Your task to perform on an android device: turn notification dots on Image 0: 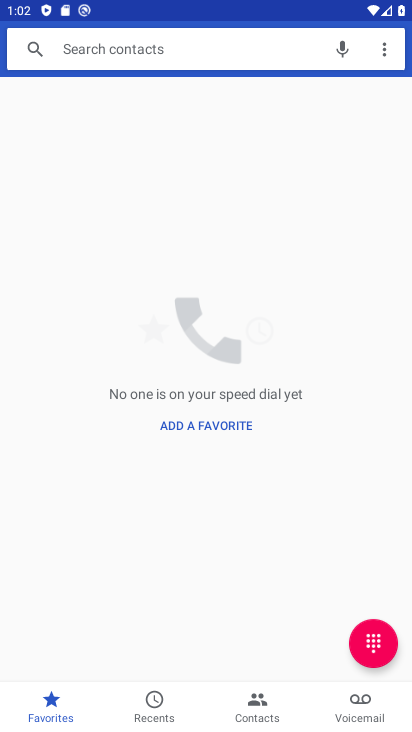
Step 0: press home button
Your task to perform on an android device: turn notification dots on Image 1: 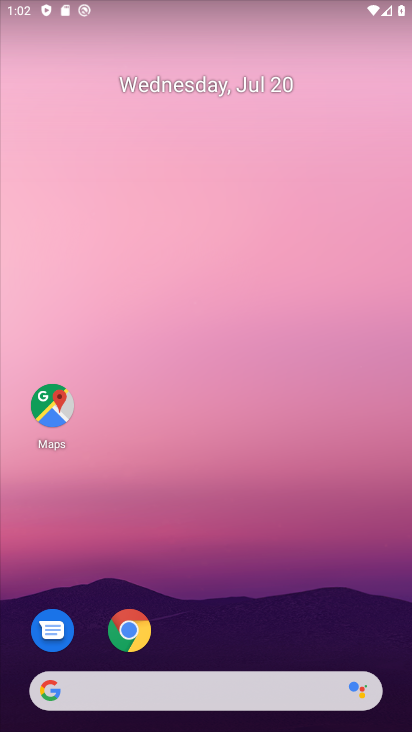
Step 1: drag from (295, 596) to (264, 130)
Your task to perform on an android device: turn notification dots on Image 2: 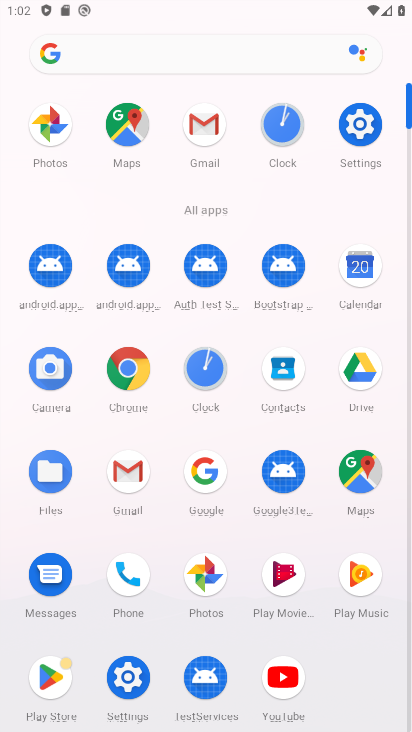
Step 2: click (365, 121)
Your task to perform on an android device: turn notification dots on Image 3: 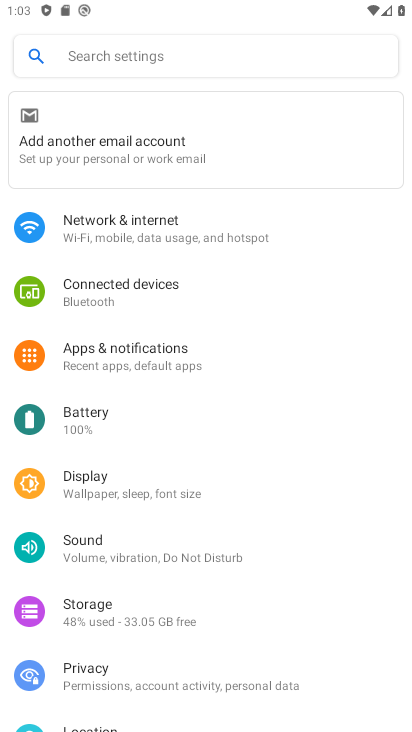
Step 3: click (138, 361)
Your task to perform on an android device: turn notification dots on Image 4: 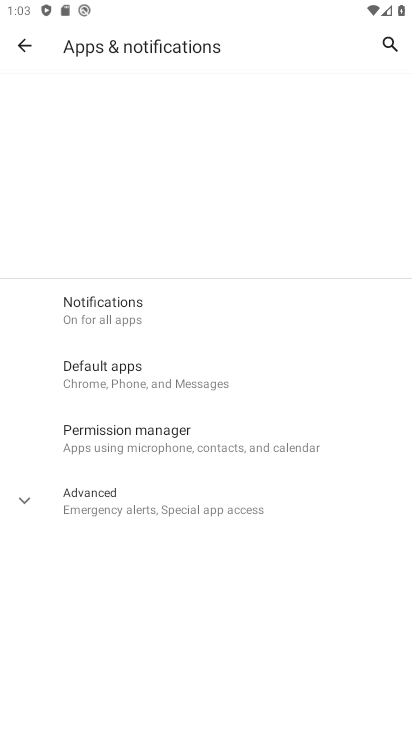
Step 4: click (136, 314)
Your task to perform on an android device: turn notification dots on Image 5: 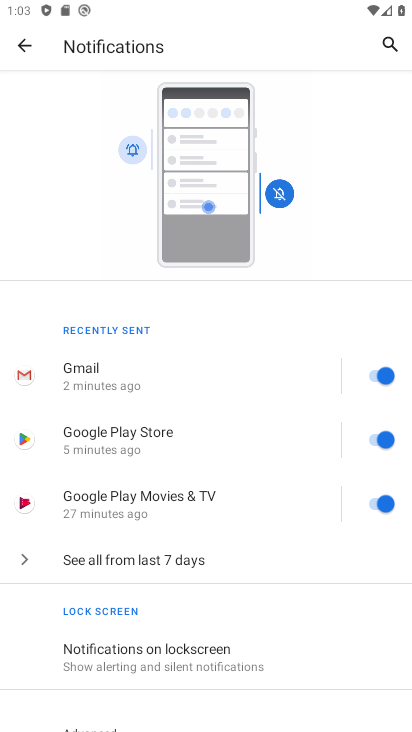
Step 5: drag from (186, 646) to (240, 113)
Your task to perform on an android device: turn notification dots on Image 6: 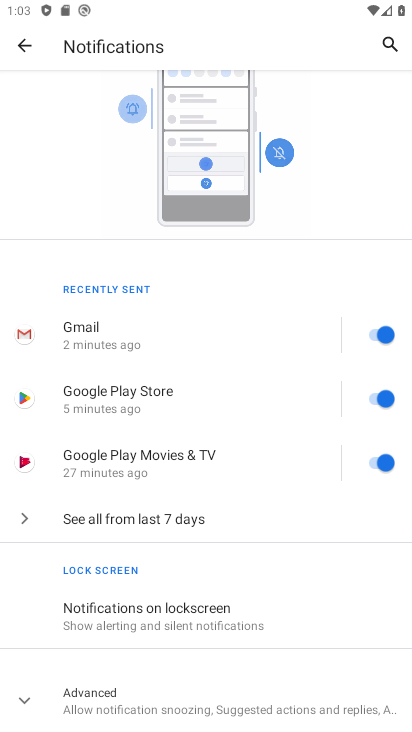
Step 6: click (169, 703)
Your task to perform on an android device: turn notification dots on Image 7: 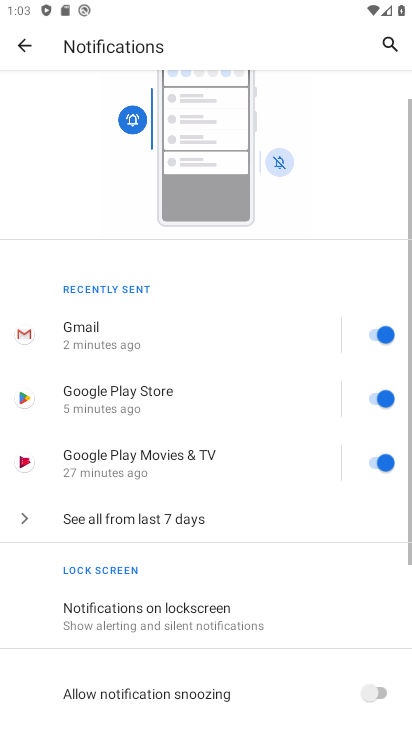
Step 7: drag from (190, 667) to (245, 203)
Your task to perform on an android device: turn notification dots on Image 8: 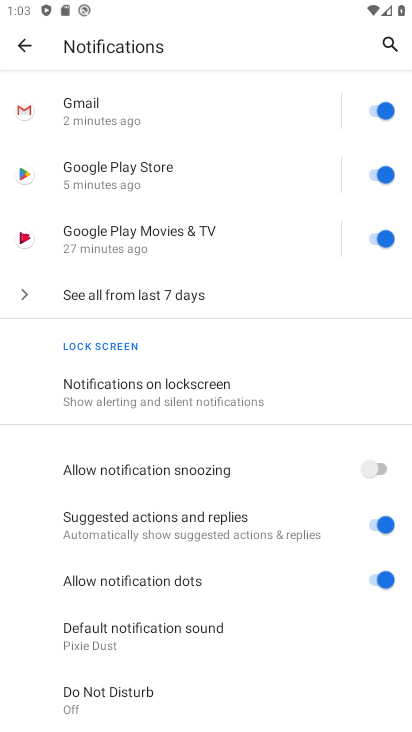
Step 8: click (386, 579)
Your task to perform on an android device: turn notification dots on Image 9: 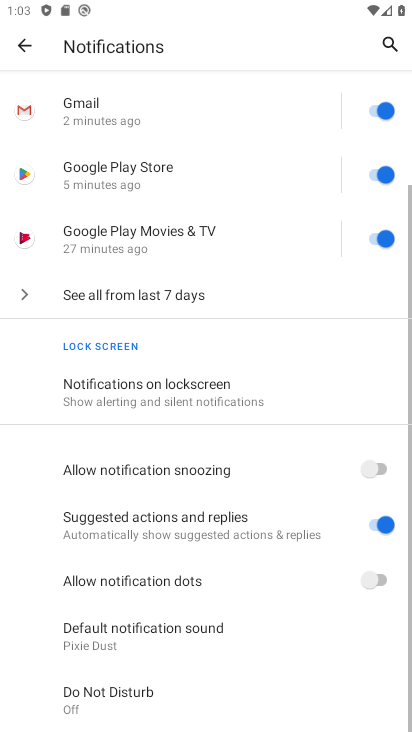
Step 9: click (386, 579)
Your task to perform on an android device: turn notification dots on Image 10: 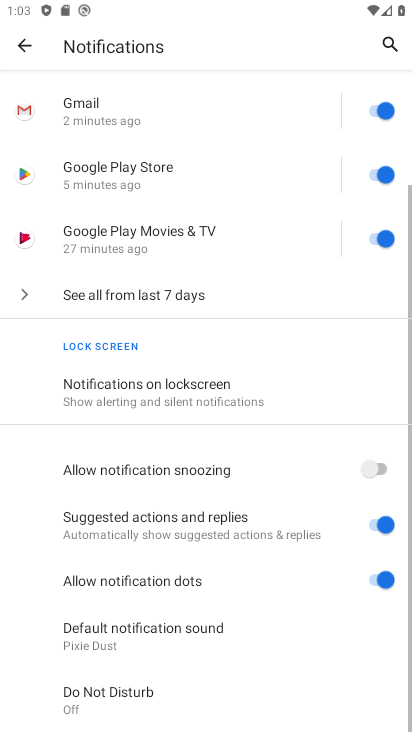
Step 10: task complete